Your task to perform on an android device: Go to Yahoo.com Image 0: 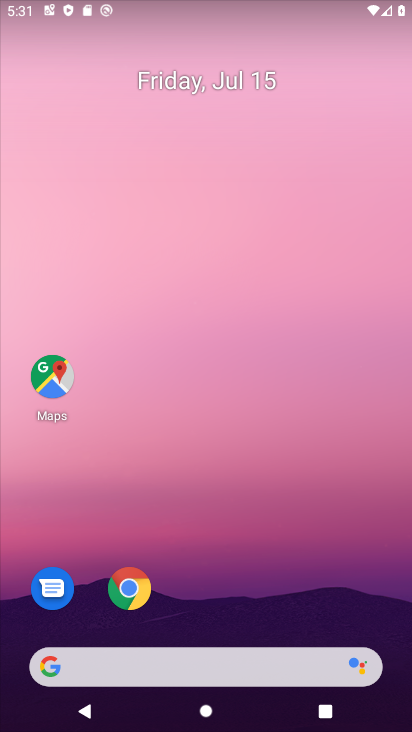
Step 0: drag from (267, 683) to (345, 90)
Your task to perform on an android device: Go to Yahoo.com Image 1: 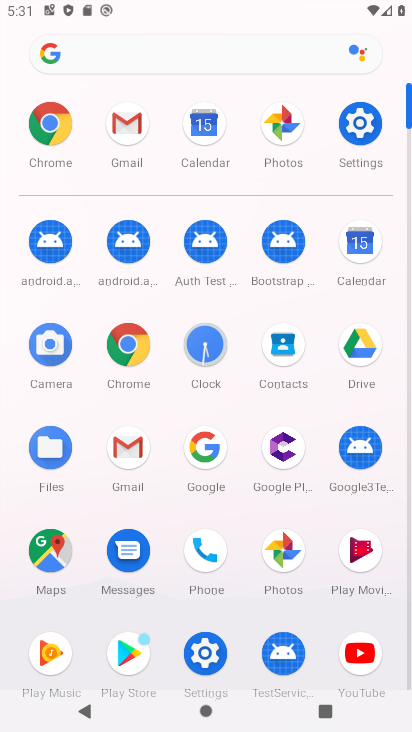
Step 1: click (130, 334)
Your task to perform on an android device: Go to Yahoo.com Image 2: 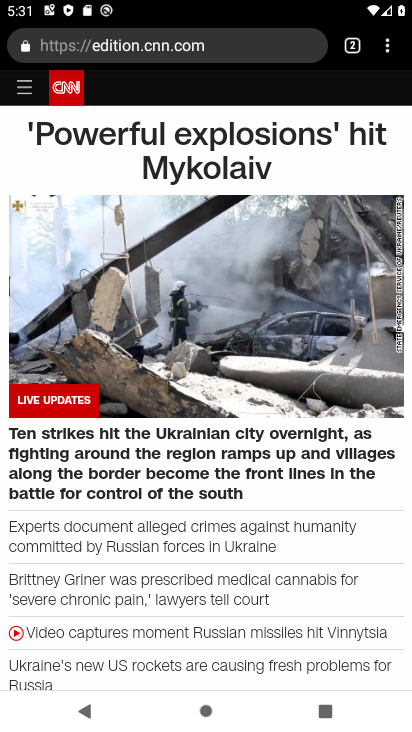
Step 2: click (389, 43)
Your task to perform on an android device: Go to Yahoo.com Image 3: 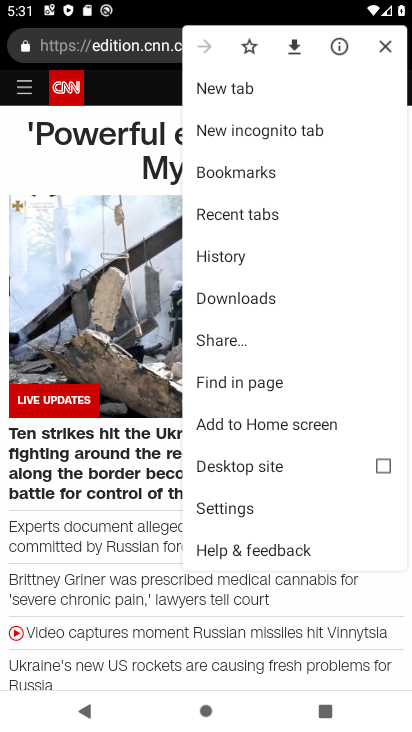
Step 3: click (305, 88)
Your task to perform on an android device: Go to Yahoo.com Image 4: 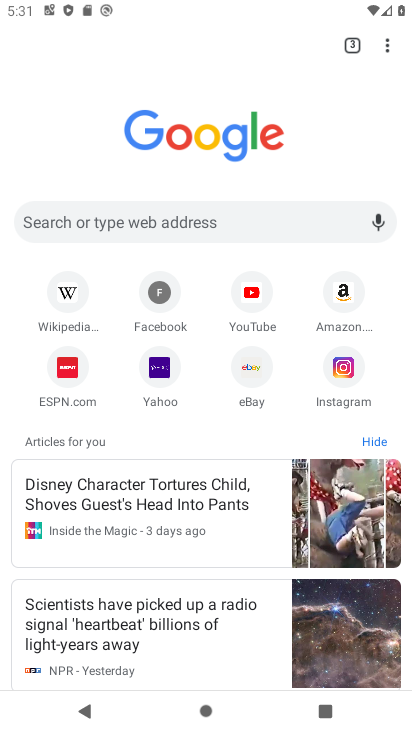
Step 4: click (161, 373)
Your task to perform on an android device: Go to Yahoo.com Image 5: 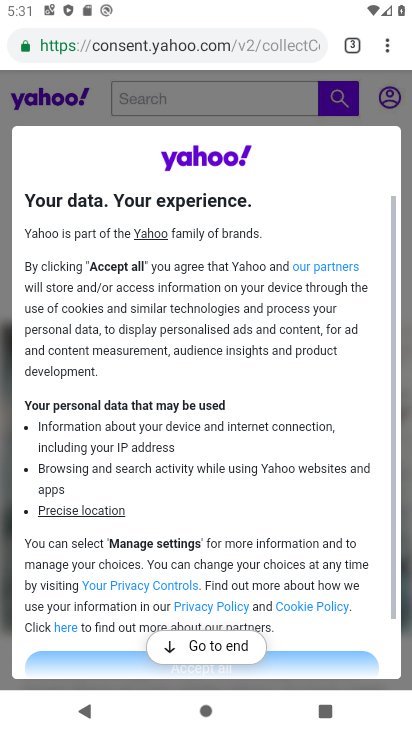
Step 5: task complete